Your task to perform on an android device: set the timer Image 0: 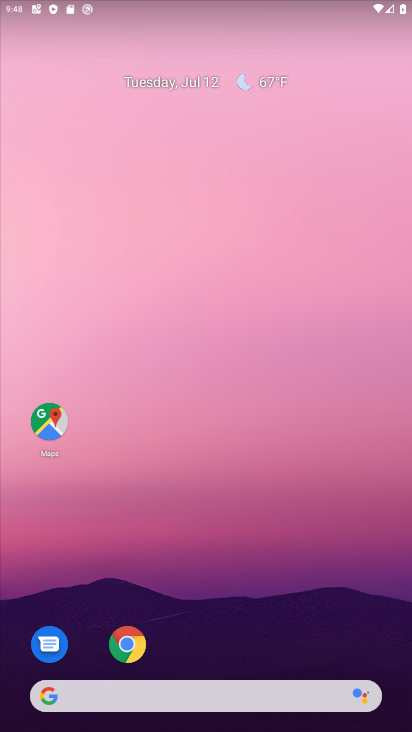
Step 0: click (219, 296)
Your task to perform on an android device: set the timer Image 1: 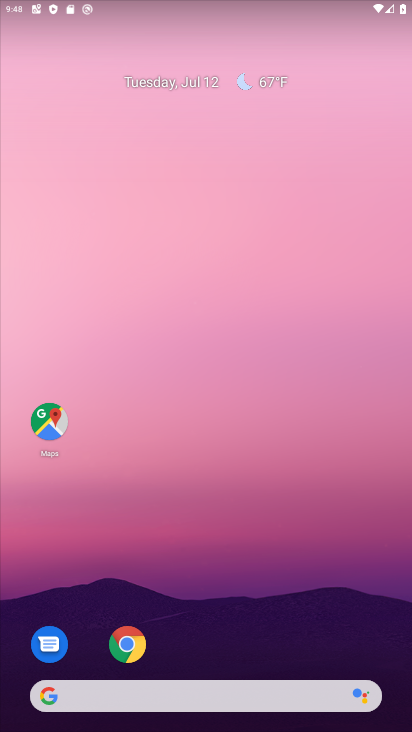
Step 1: drag from (182, 614) to (225, 128)
Your task to perform on an android device: set the timer Image 2: 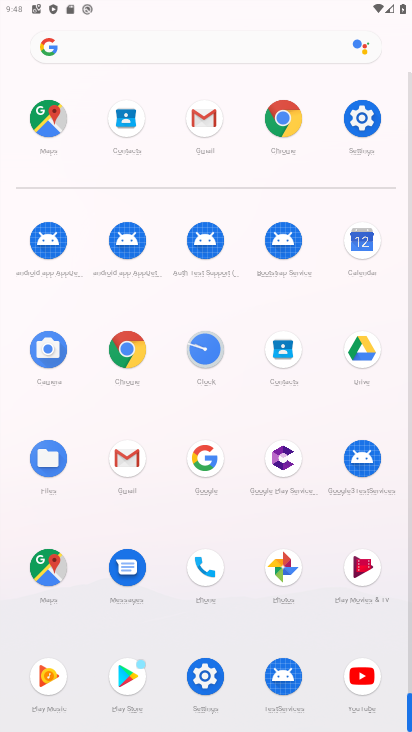
Step 2: click (200, 352)
Your task to perform on an android device: set the timer Image 3: 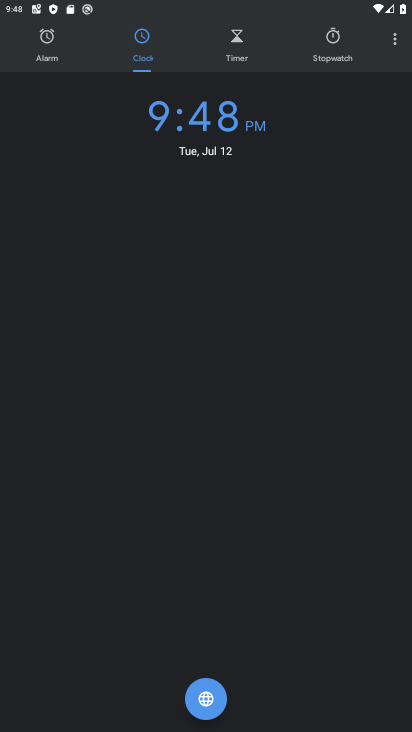
Step 3: click (237, 52)
Your task to perform on an android device: set the timer Image 4: 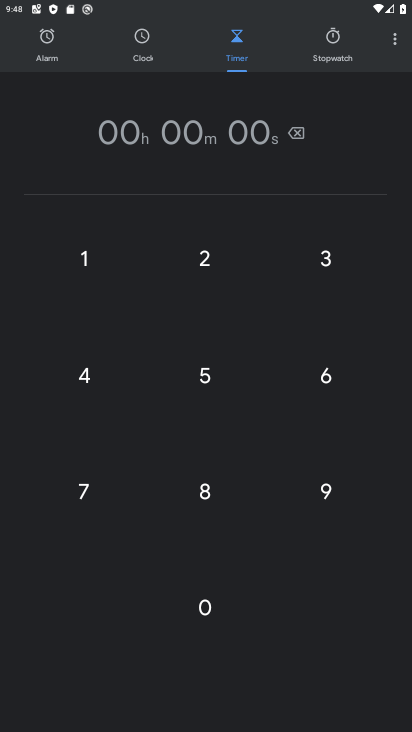
Step 4: click (201, 254)
Your task to perform on an android device: set the timer Image 5: 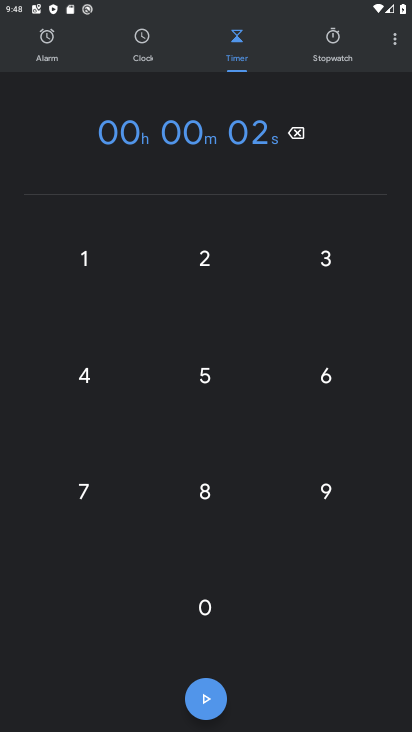
Step 5: click (324, 260)
Your task to perform on an android device: set the timer Image 6: 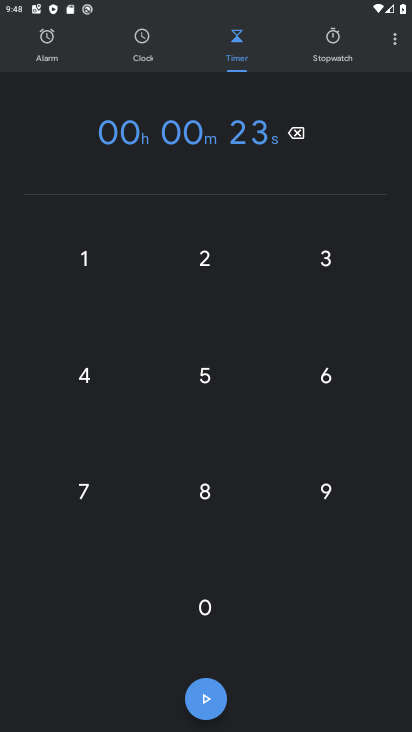
Step 6: click (205, 690)
Your task to perform on an android device: set the timer Image 7: 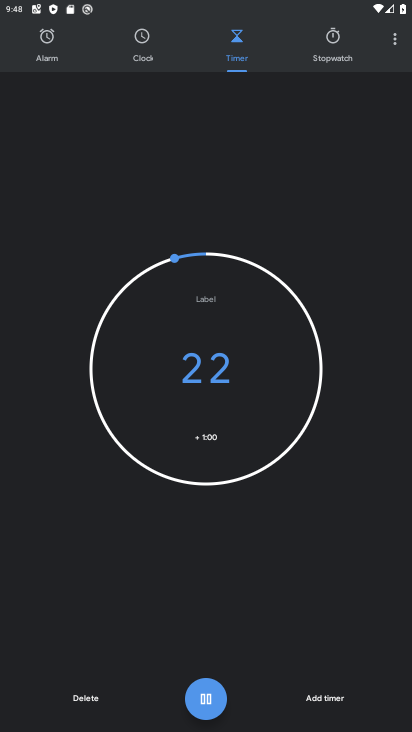
Step 7: task complete